Your task to perform on an android device: Open Maps and search for coffee Image 0: 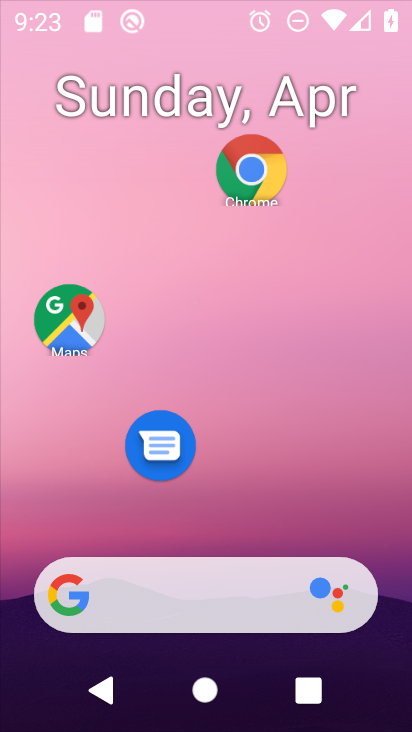
Step 0: drag from (260, 502) to (233, 79)
Your task to perform on an android device: Open Maps and search for coffee Image 1: 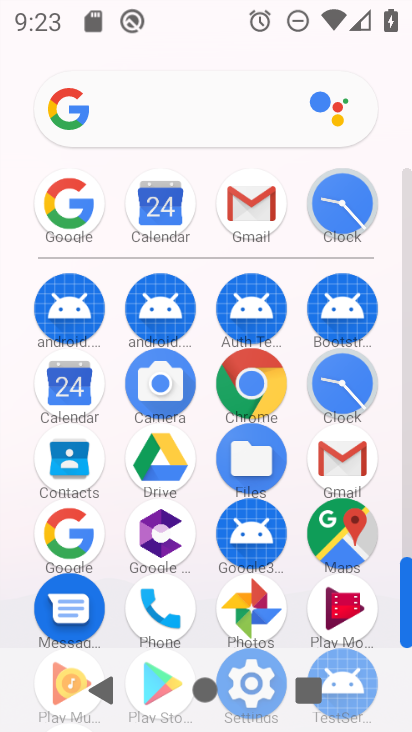
Step 1: drag from (208, 614) to (223, 301)
Your task to perform on an android device: Open Maps and search for coffee Image 2: 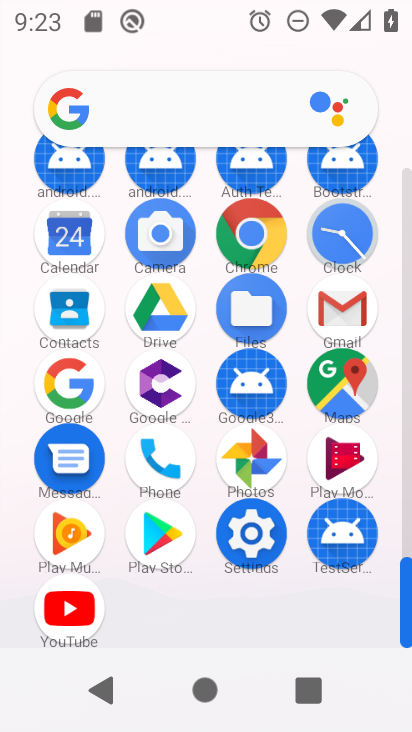
Step 2: click (341, 383)
Your task to perform on an android device: Open Maps and search for coffee Image 3: 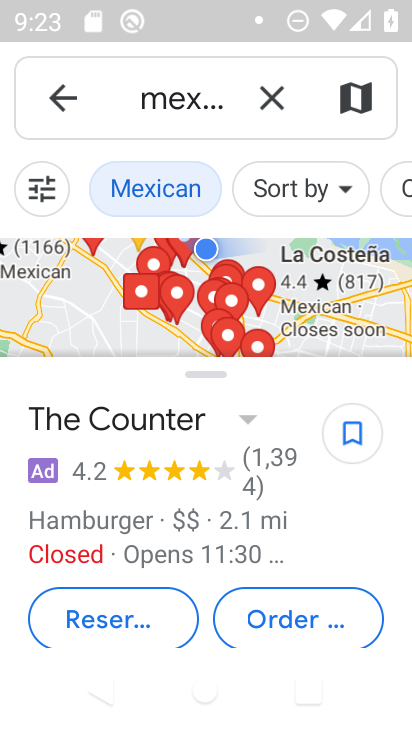
Step 3: click (275, 94)
Your task to perform on an android device: Open Maps and search for coffee Image 4: 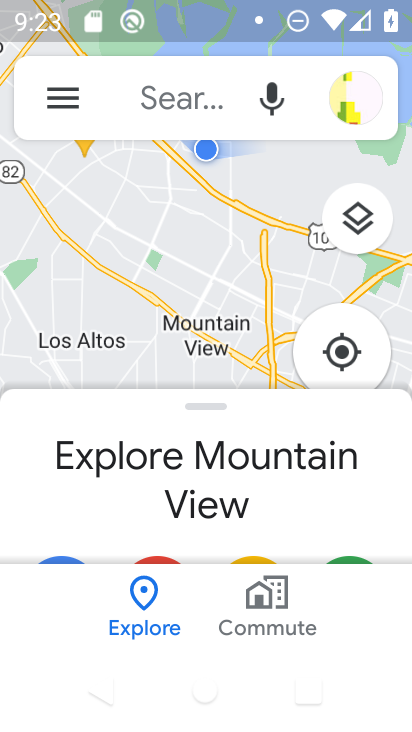
Step 4: click (171, 104)
Your task to perform on an android device: Open Maps and search for coffee Image 5: 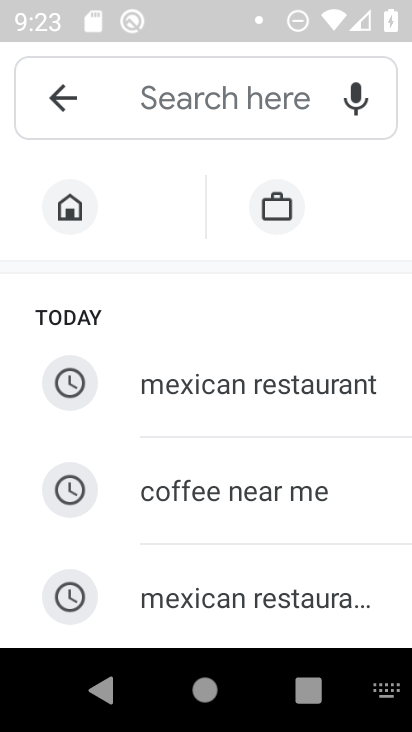
Step 5: drag from (273, 506) to (272, 375)
Your task to perform on an android device: Open Maps and search for coffee Image 6: 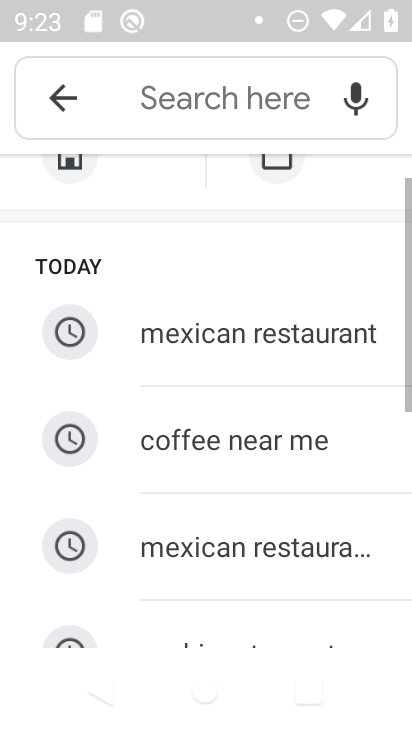
Step 6: click (177, 107)
Your task to perform on an android device: Open Maps and search for coffee Image 7: 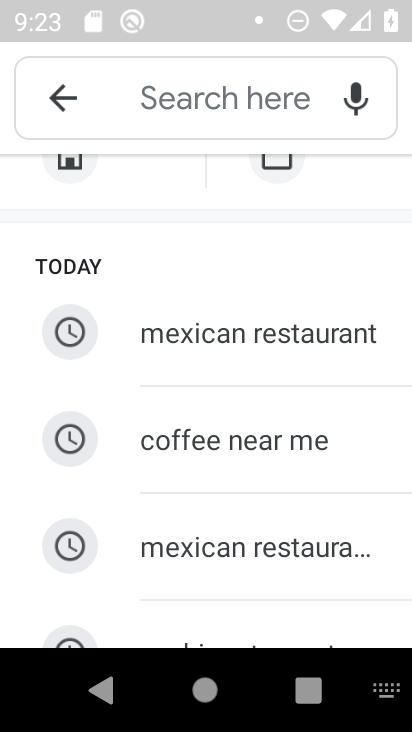
Step 7: type "coffee"
Your task to perform on an android device: Open Maps and search for coffee Image 8: 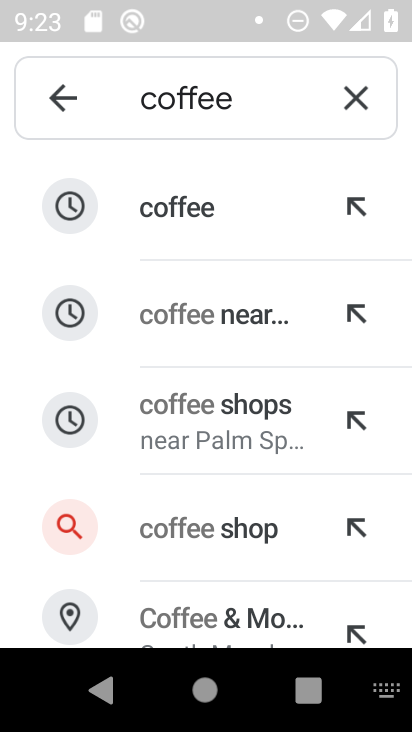
Step 8: click (216, 226)
Your task to perform on an android device: Open Maps and search for coffee Image 9: 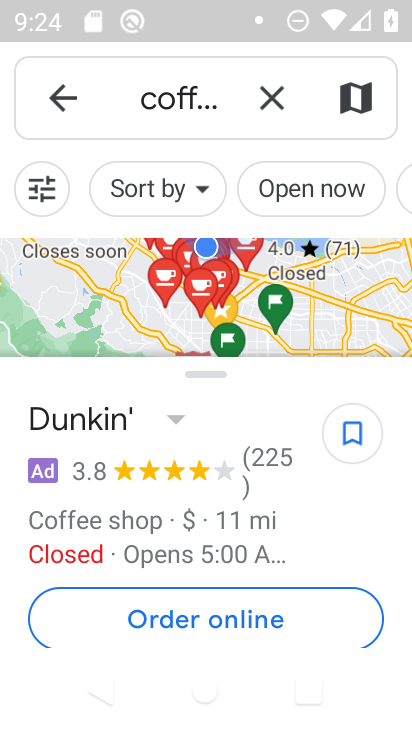
Step 9: task complete